Your task to perform on an android device: Show me the alarms in the clock app Image 0: 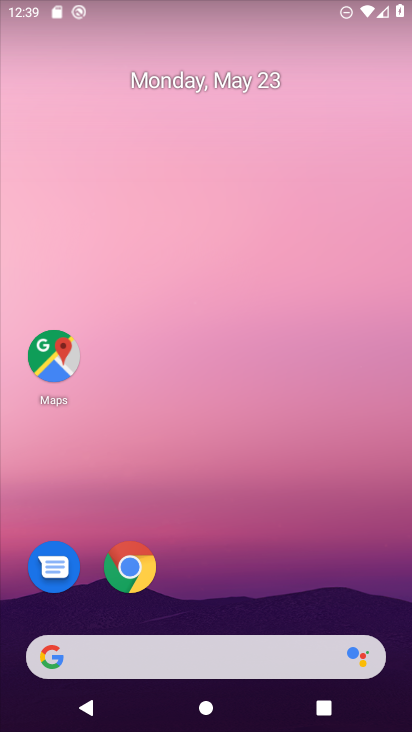
Step 0: drag from (239, 479) to (167, 16)
Your task to perform on an android device: Show me the alarms in the clock app Image 1: 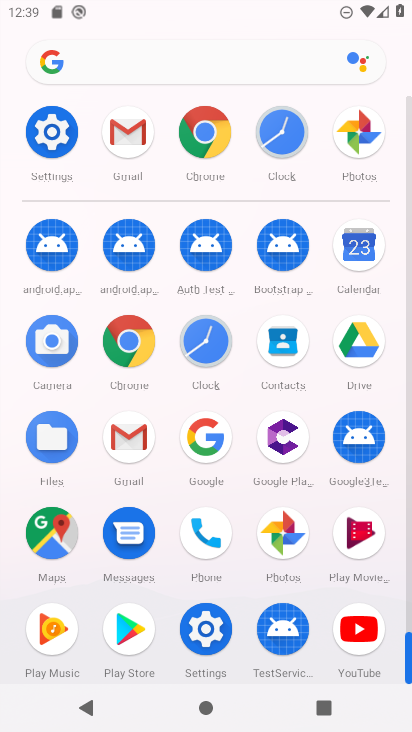
Step 1: click (284, 133)
Your task to perform on an android device: Show me the alarms in the clock app Image 2: 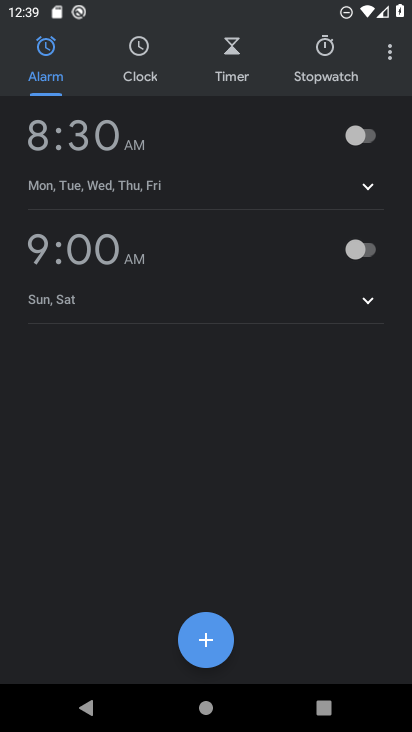
Step 2: task complete